Your task to perform on an android device: change text size in settings app Image 0: 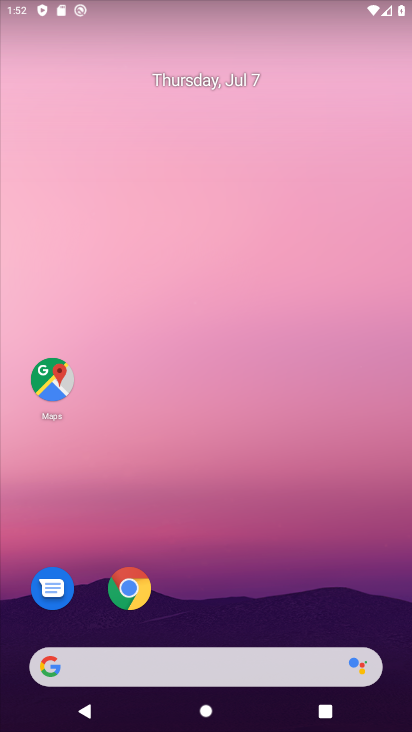
Step 0: drag from (390, 641) to (342, 97)
Your task to perform on an android device: change text size in settings app Image 1: 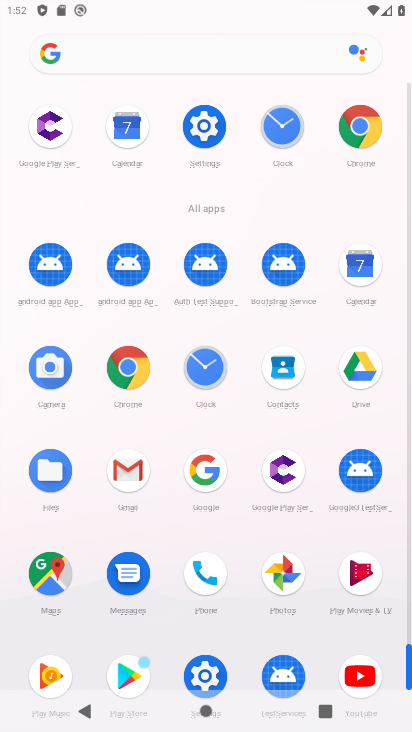
Step 1: click (202, 675)
Your task to perform on an android device: change text size in settings app Image 2: 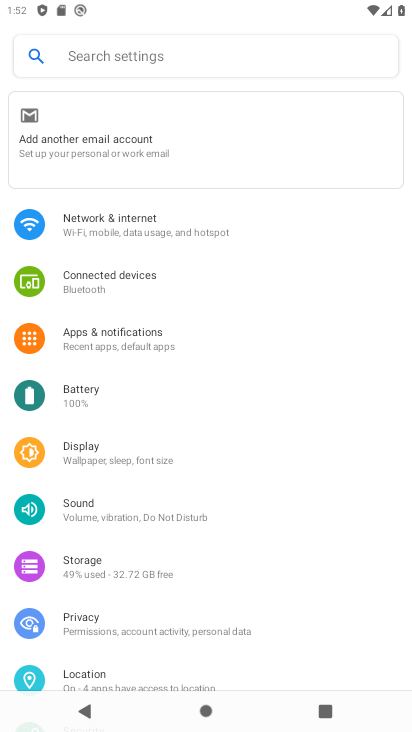
Step 2: click (115, 462)
Your task to perform on an android device: change text size in settings app Image 3: 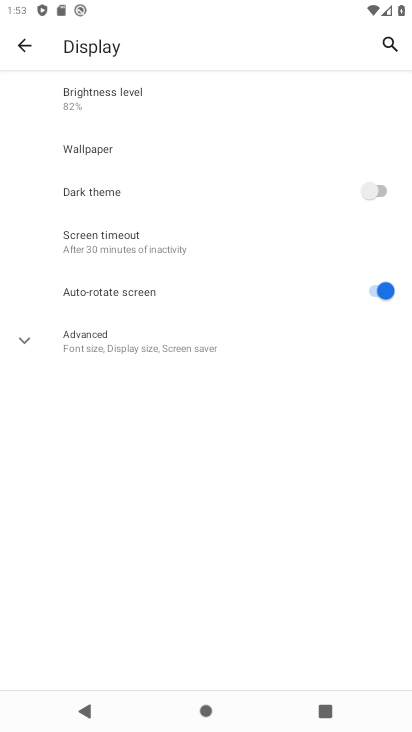
Step 3: click (22, 347)
Your task to perform on an android device: change text size in settings app Image 4: 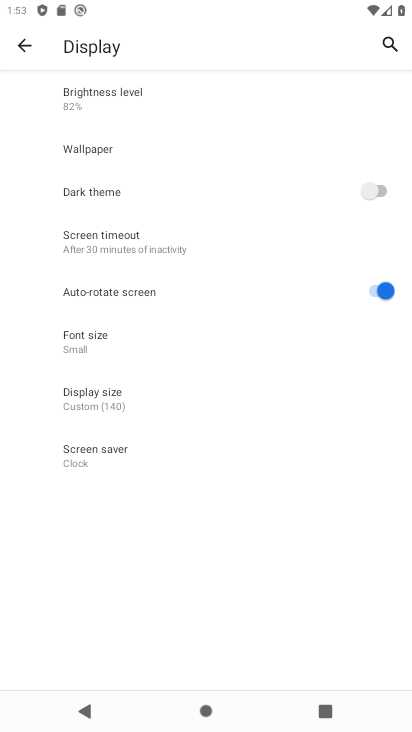
Step 4: click (78, 336)
Your task to perform on an android device: change text size in settings app Image 5: 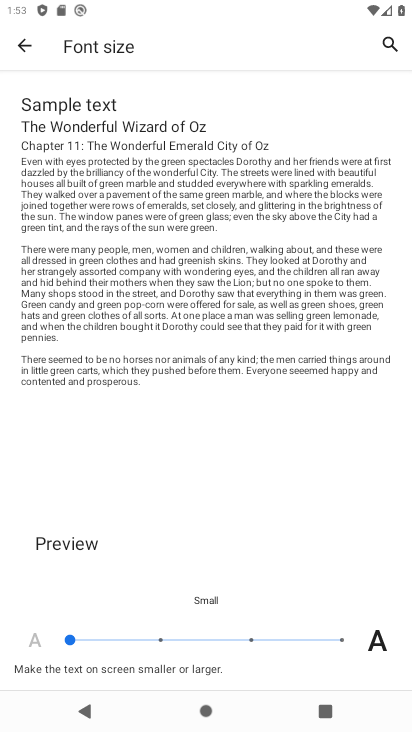
Step 5: click (249, 639)
Your task to perform on an android device: change text size in settings app Image 6: 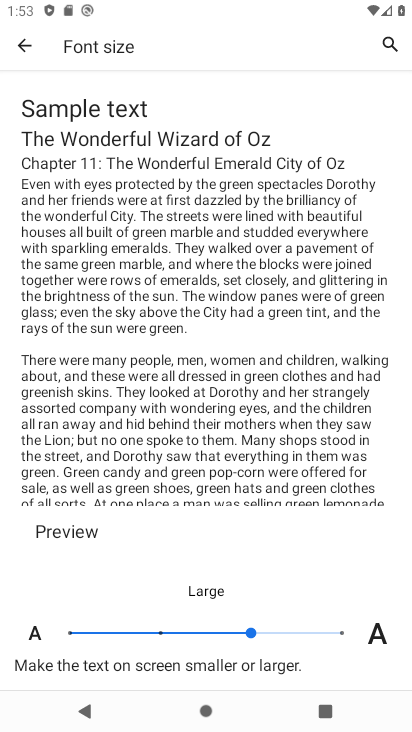
Step 6: task complete